Your task to perform on an android device: check the backup settings in the google photos Image 0: 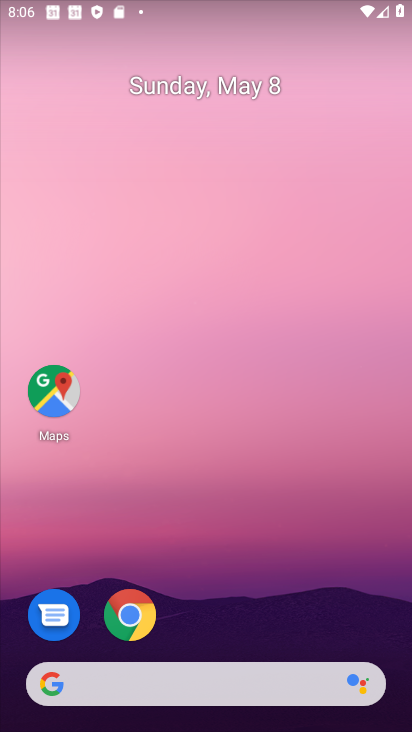
Step 0: drag from (221, 607) to (256, 240)
Your task to perform on an android device: check the backup settings in the google photos Image 1: 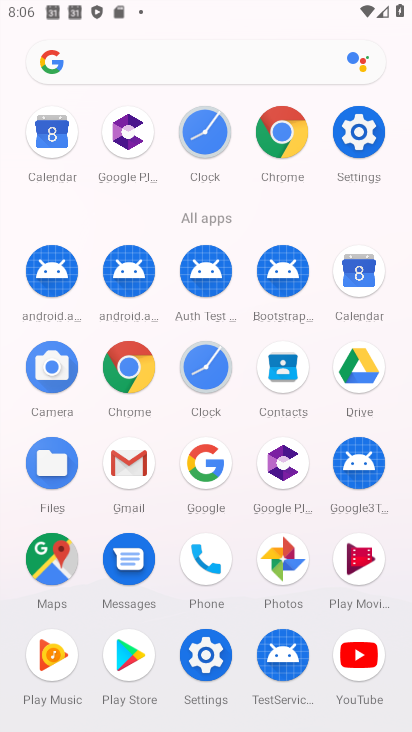
Step 1: click (284, 571)
Your task to perform on an android device: check the backup settings in the google photos Image 2: 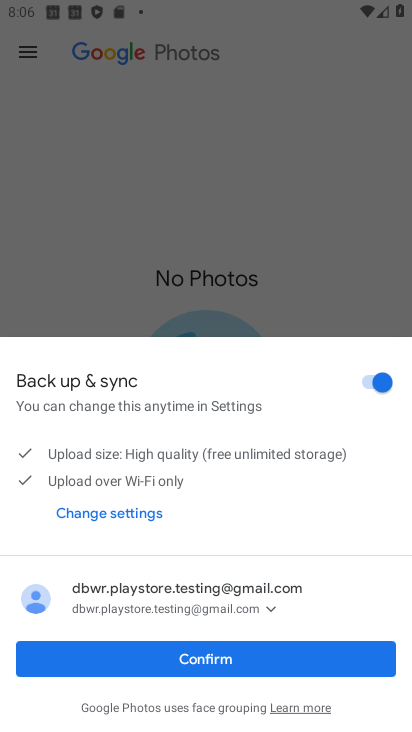
Step 2: click (262, 659)
Your task to perform on an android device: check the backup settings in the google photos Image 3: 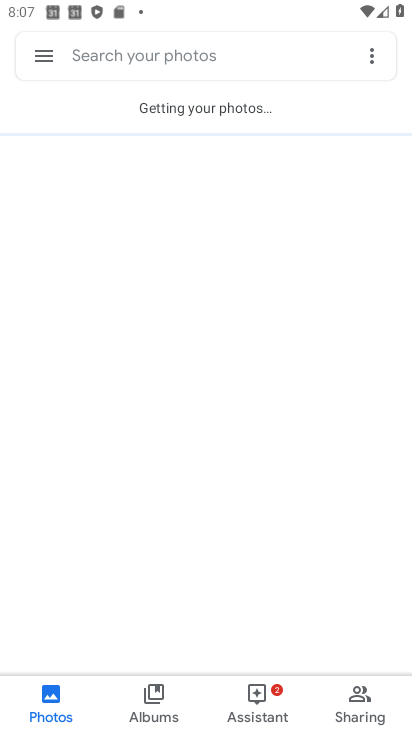
Step 3: click (34, 42)
Your task to perform on an android device: check the backup settings in the google photos Image 4: 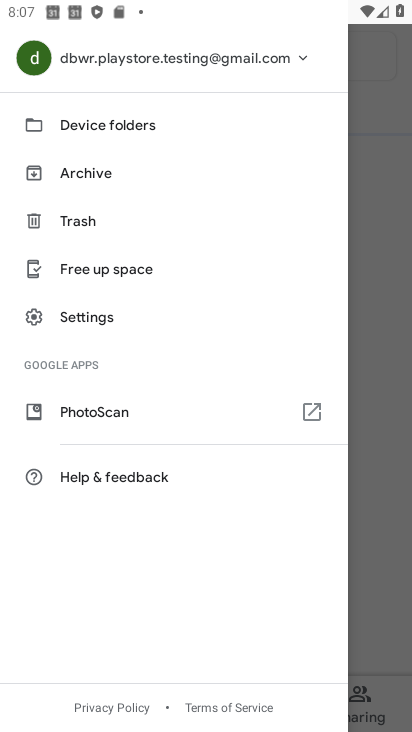
Step 4: click (100, 315)
Your task to perform on an android device: check the backup settings in the google photos Image 5: 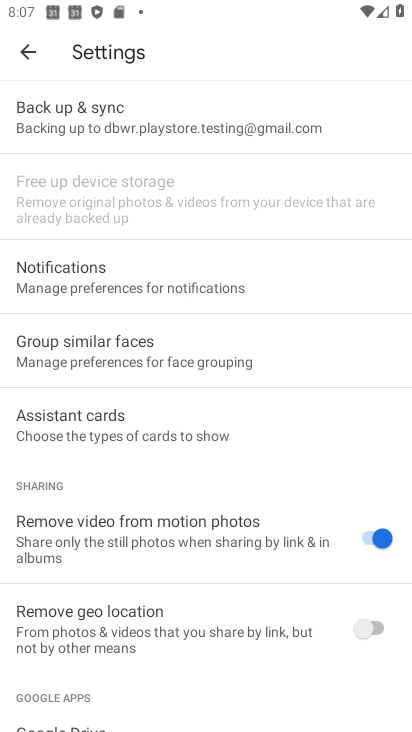
Step 5: click (228, 92)
Your task to perform on an android device: check the backup settings in the google photos Image 6: 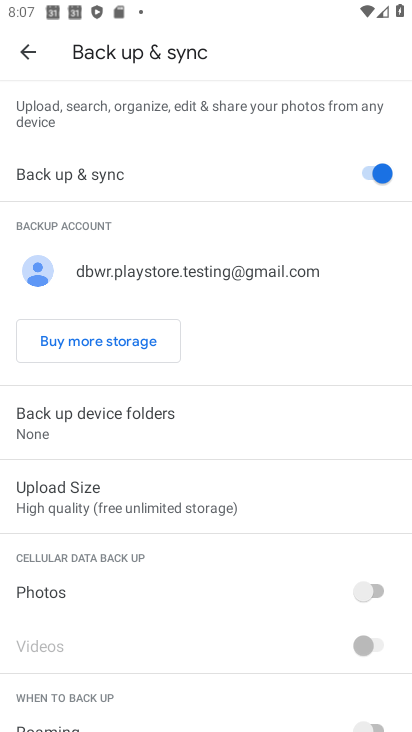
Step 6: task complete